Your task to perform on an android device: Do I have any events tomorrow? Image 0: 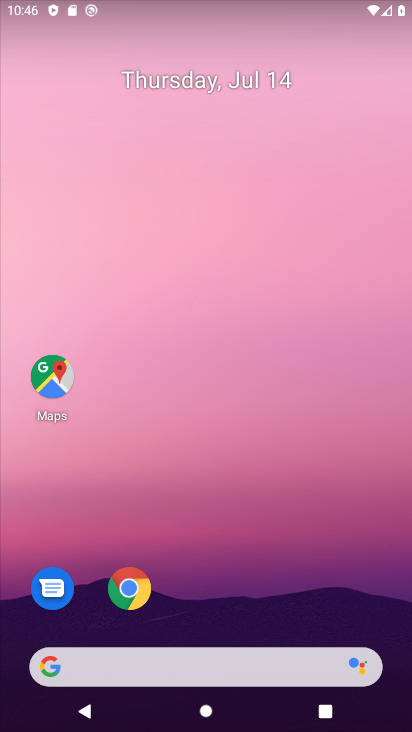
Step 0: drag from (223, 668) to (241, 163)
Your task to perform on an android device: Do I have any events tomorrow? Image 1: 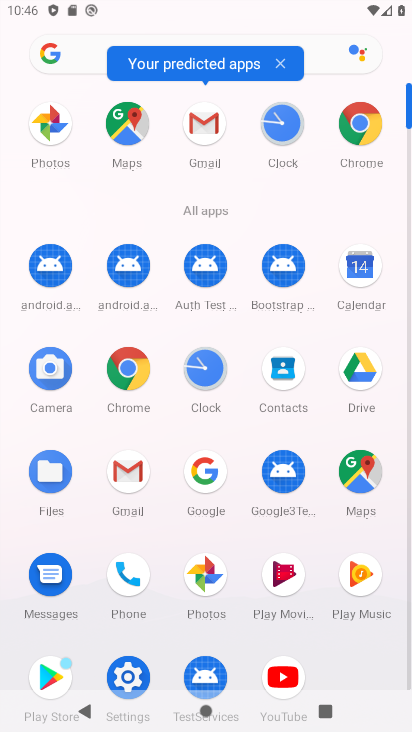
Step 1: click (363, 267)
Your task to perform on an android device: Do I have any events tomorrow? Image 2: 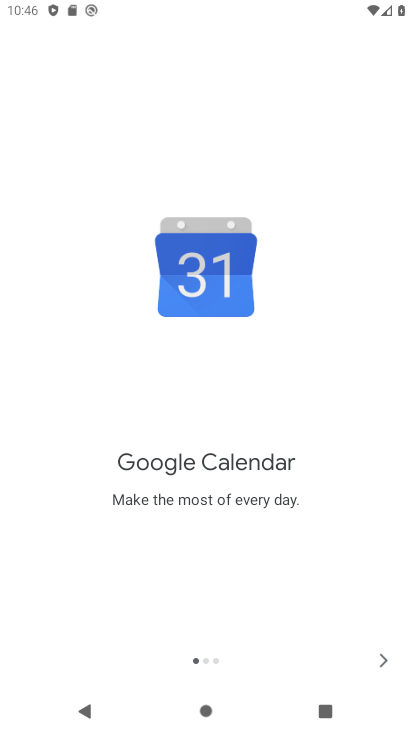
Step 2: click (385, 661)
Your task to perform on an android device: Do I have any events tomorrow? Image 3: 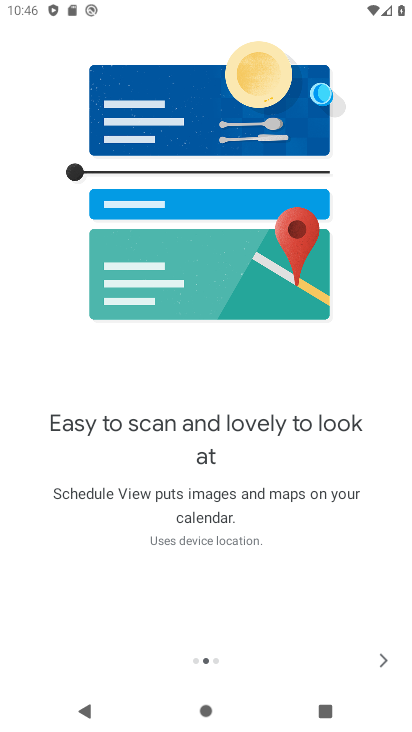
Step 3: click (385, 661)
Your task to perform on an android device: Do I have any events tomorrow? Image 4: 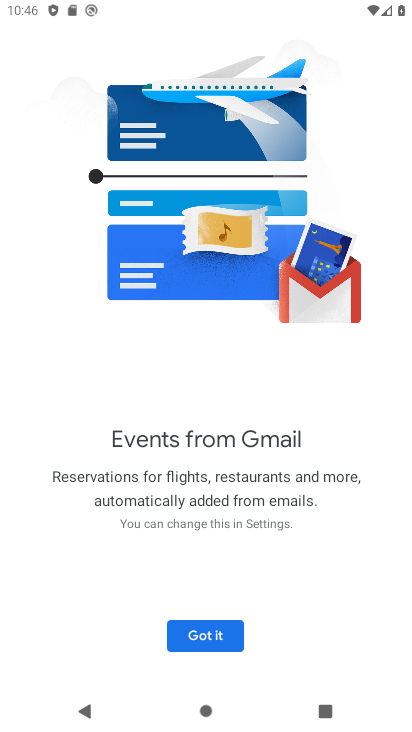
Step 4: click (210, 635)
Your task to perform on an android device: Do I have any events tomorrow? Image 5: 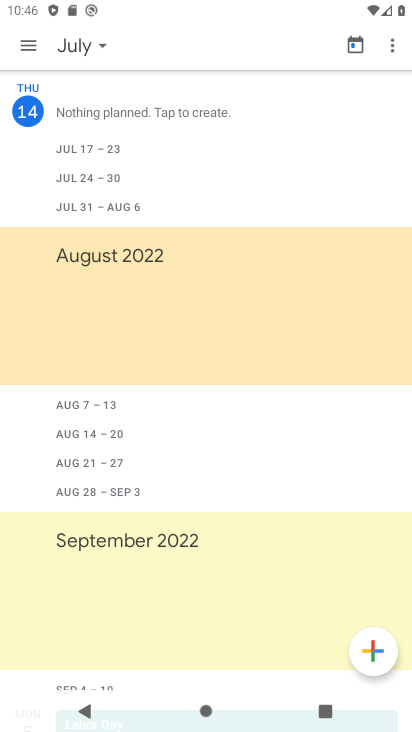
Step 5: click (101, 48)
Your task to perform on an android device: Do I have any events tomorrow? Image 6: 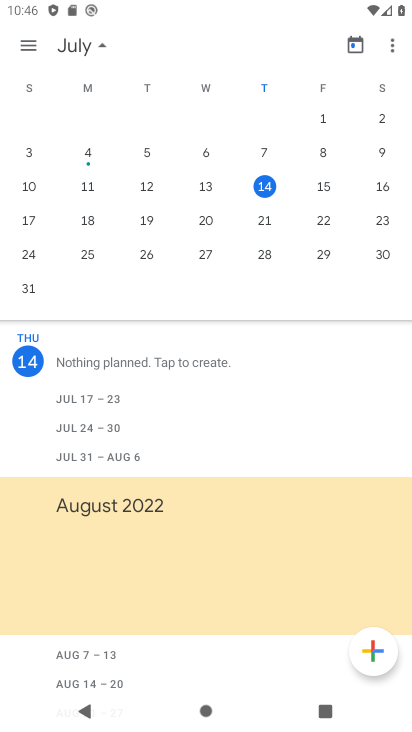
Step 6: click (331, 189)
Your task to perform on an android device: Do I have any events tomorrow? Image 7: 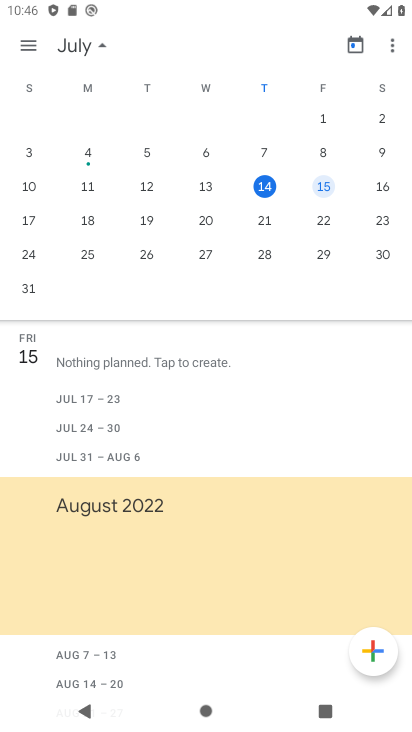
Step 7: click (30, 42)
Your task to perform on an android device: Do I have any events tomorrow? Image 8: 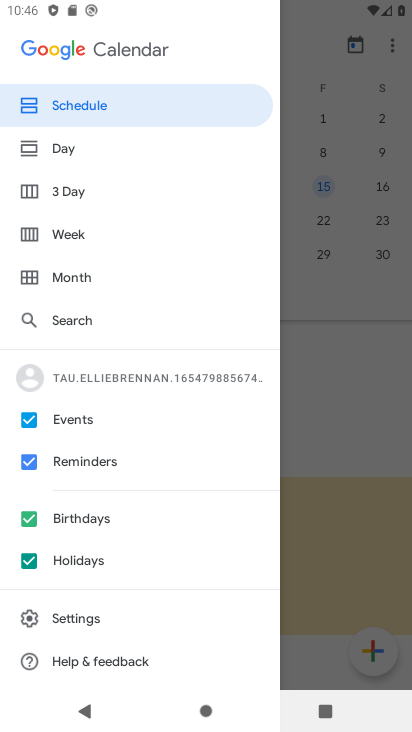
Step 8: click (58, 118)
Your task to perform on an android device: Do I have any events tomorrow? Image 9: 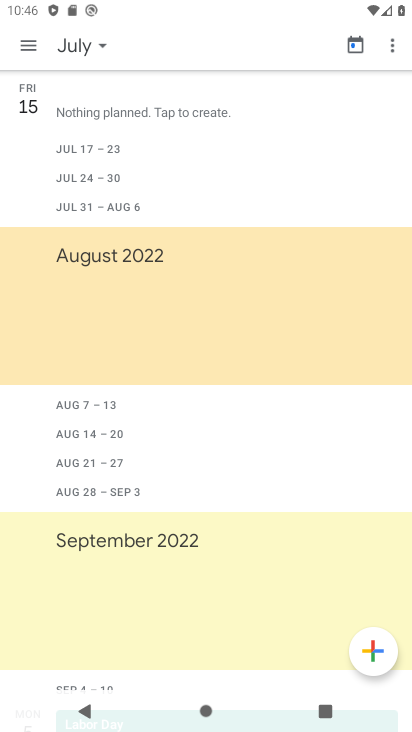
Step 9: task complete